Your task to perform on an android device: Search for sushi restaurants on Maps Image 0: 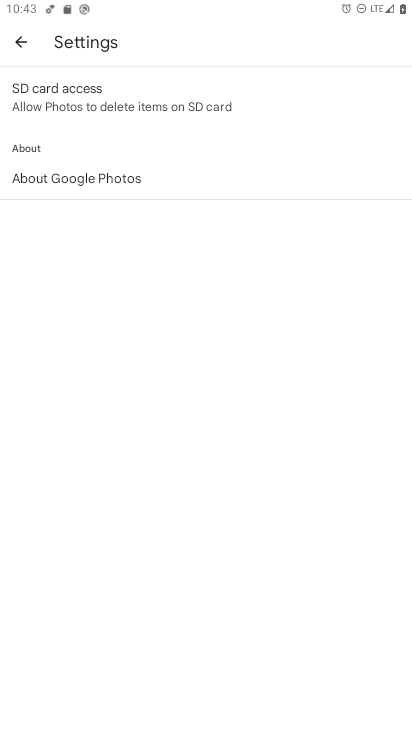
Step 0: press home button
Your task to perform on an android device: Search for sushi restaurants on Maps Image 1: 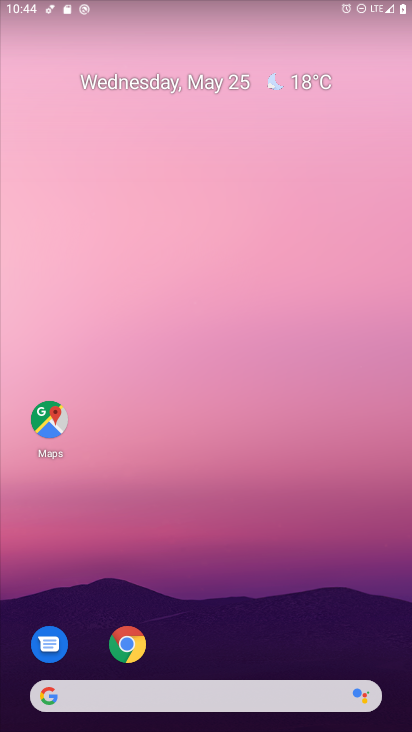
Step 1: click (47, 416)
Your task to perform on an android device: Search for sushi restaurants on Maps Image 2: 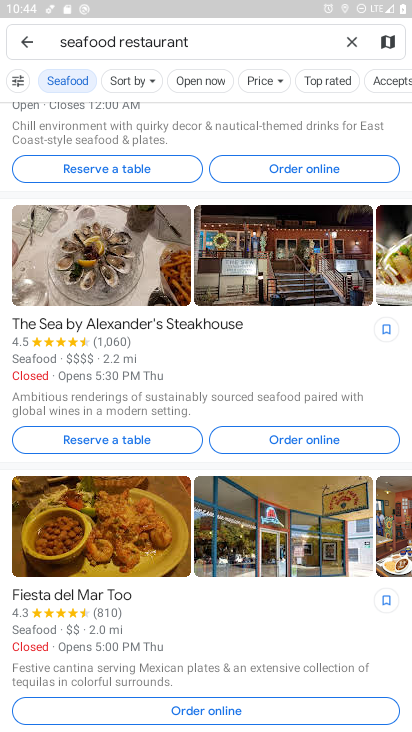
Step 2: click (353, 40)
Your task to perform on an android device: Search for sushi restaurants on Maps Image 3: 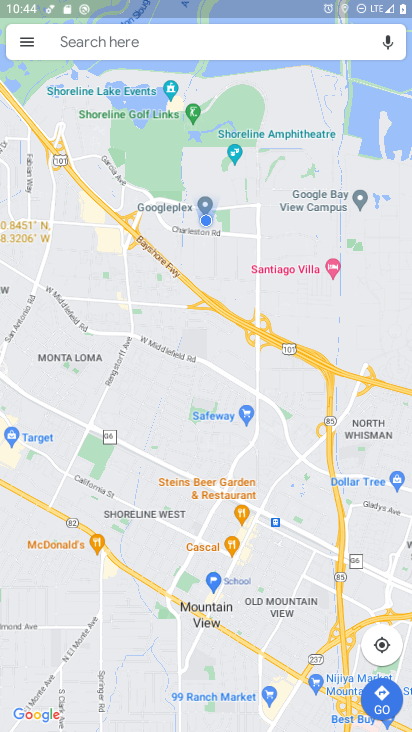
Step 3: click (136, 40)
Your task to perform on an android device: Search for sushi restaurants on Maps Image 4: 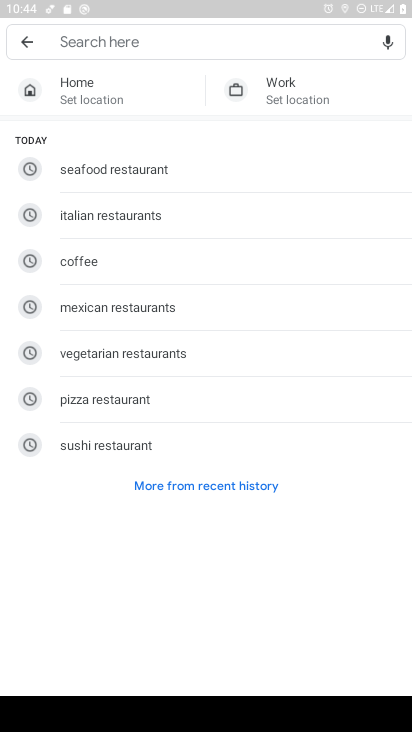
Step 4: type "sushi"
Your task to perform on an android device: Search for sushi restaurants on Maps Image 5: 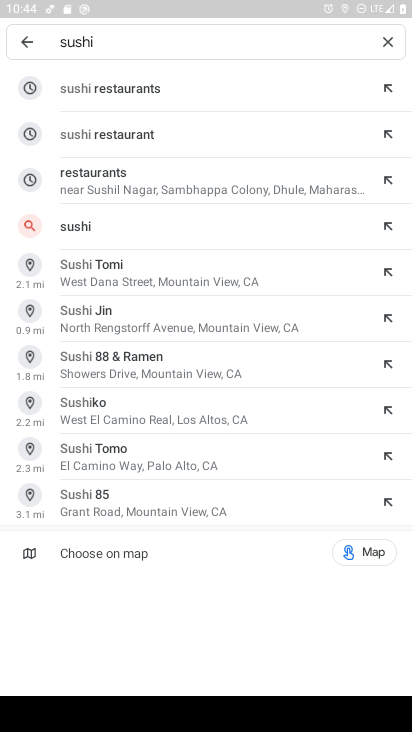
Step 5: click (172, 84)
Your task to perform on an android device: Search for sushi restaurants on Maps Image 6: 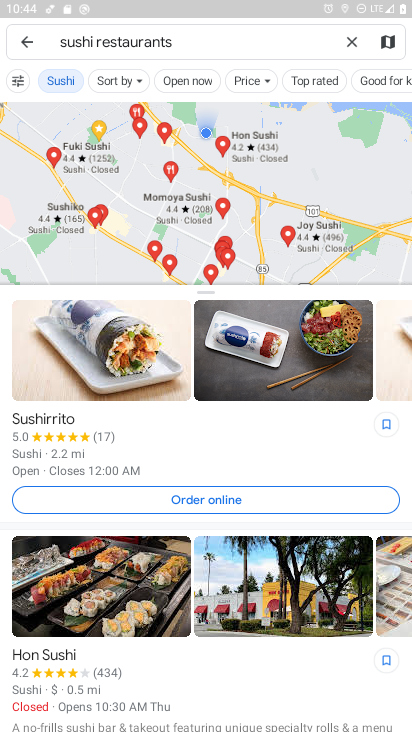
Step 6: task complete